Your task to perform on an android device: What's the weather? Image 0: 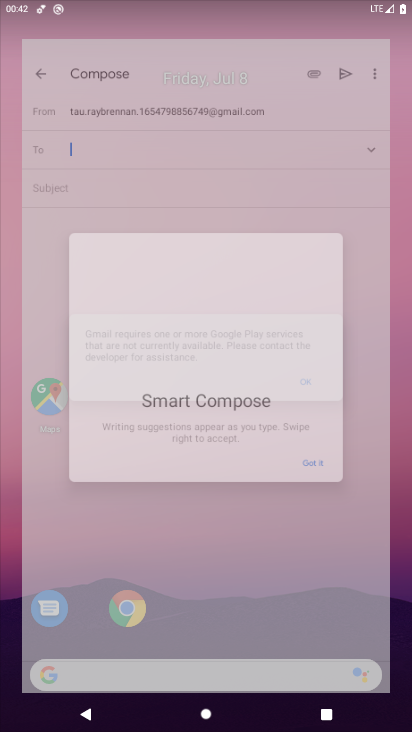
Step 0: drag from (298, 479) to (295, 66)
Your task to perform on an android device: What's the weather? Image 1: 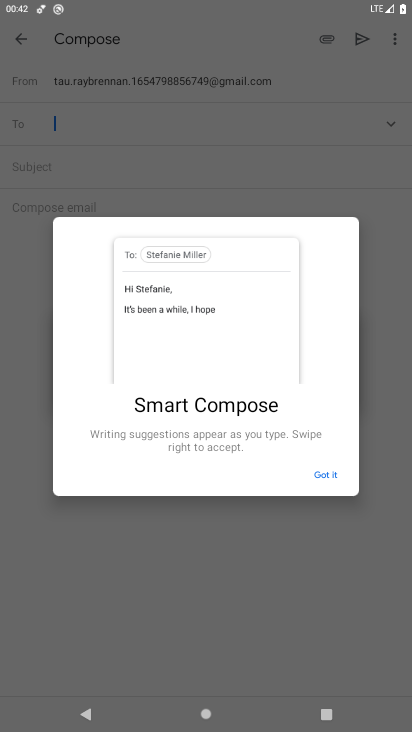
Step 1: press home button
Your task to perform on an android device: What's the weather? Image 2: 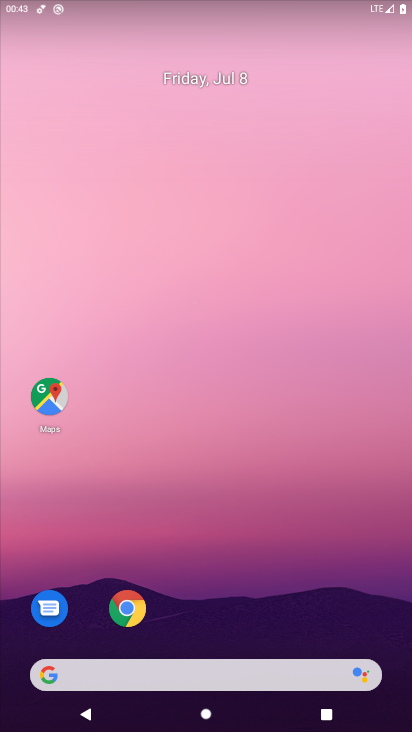
Step 2: click (104, 608)
Your task to perform on an android device: What's the weather? Image 3: 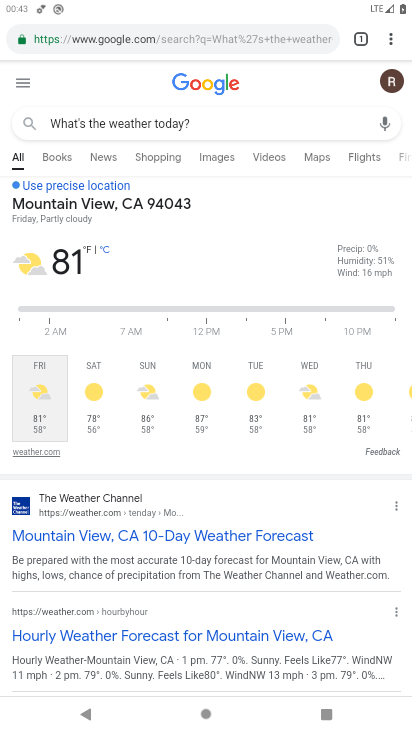
Step 3: click (125, 45)
Your task to perform on an android device: What's the weather? Image 4: 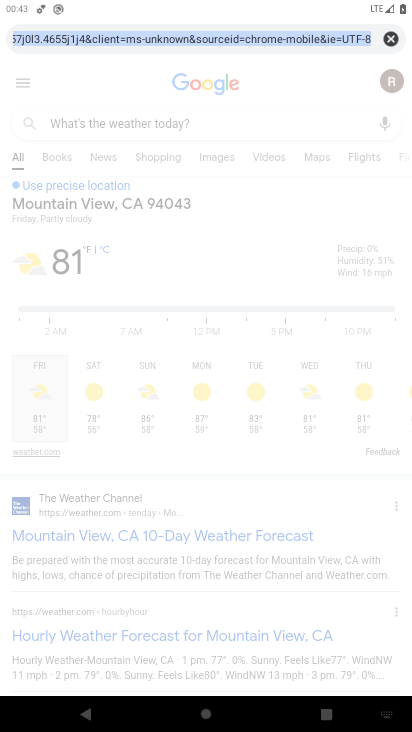
Step 4: type "What's the weather?"
Your task to perform on an android device: What's the weather? Image 5: 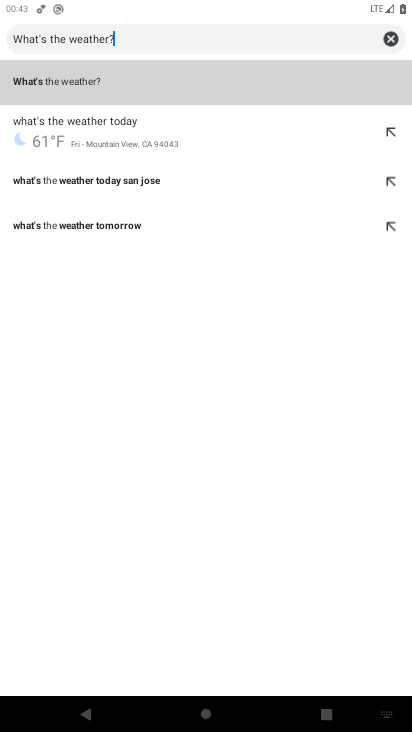
Step 5: click (220, 94)
Your task to perform on an android device: What's the weather? Image 6: 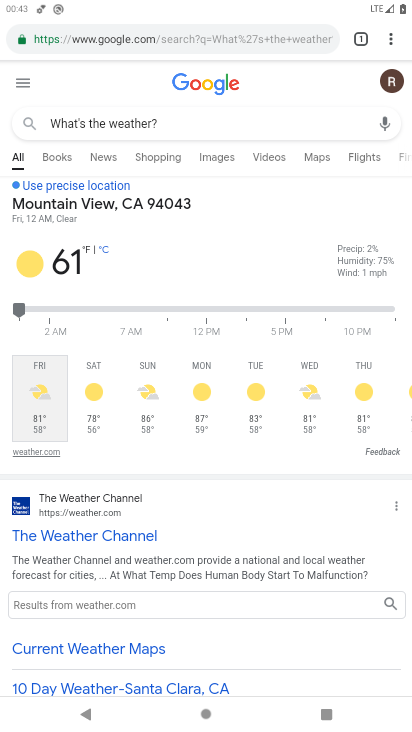
Step 6: task complete